Your task to perform on an android device: turn off location Image 0: 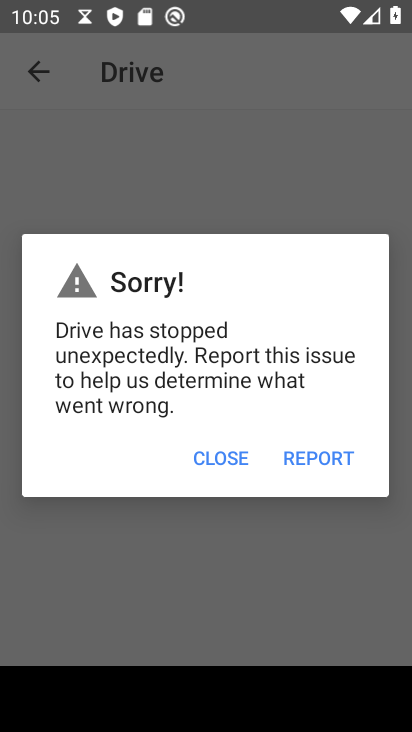
Step 0: press home button
Your task to perform on an android device: turn off location Image 1: 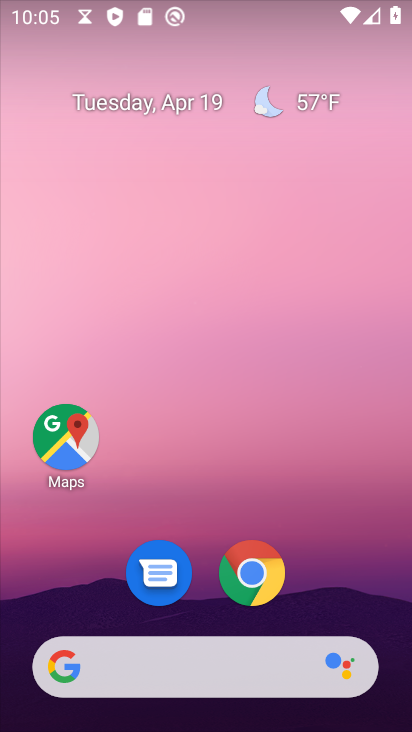
Step 1: drag from (298, 562) to (274, 70)
Your task to perform on an android device: turn off location Image 2: 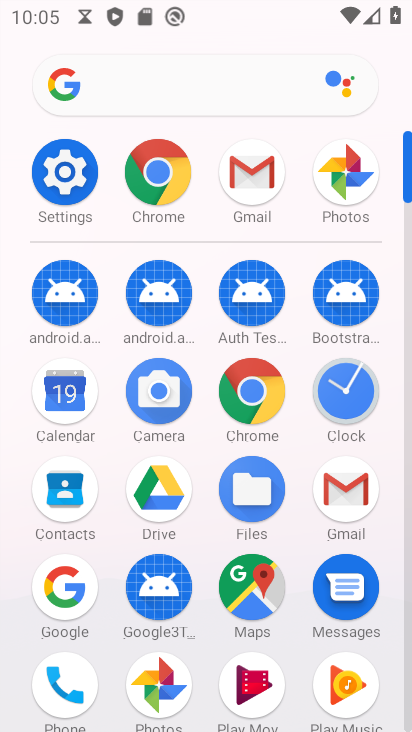
Step 2: click (69, 193)
Your task to perform on an android device: turn off location Image 3: 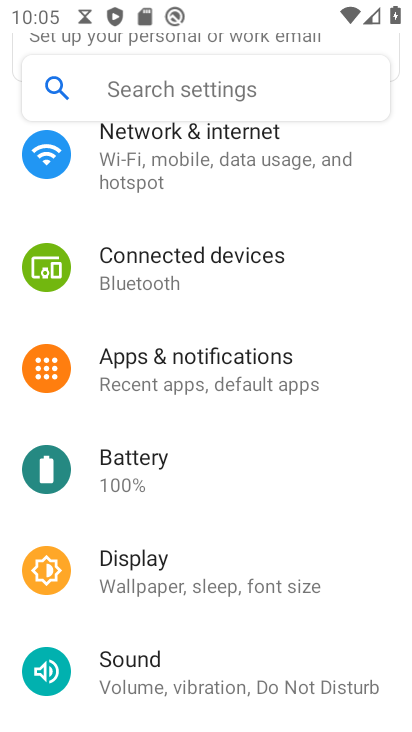
Step 3: drag from (240, 540) to (217, 141)
Your task to perform on an android device: turn off location Image 4: 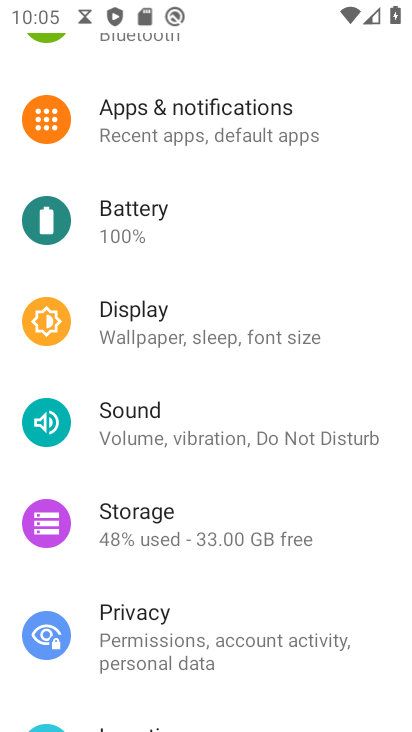
Step 4: drag from (307, 567) to (315, 213)
Your task to perform on an android device: turn off location Image 5: 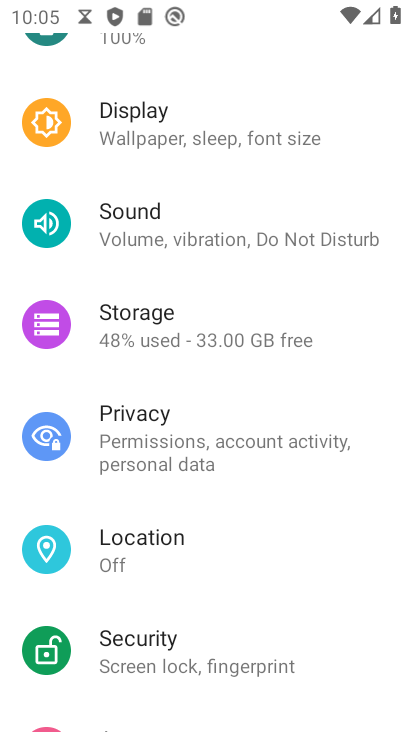
Step 5: click (112, 557)
Your task to perform on an android device: turn off location Image 6: 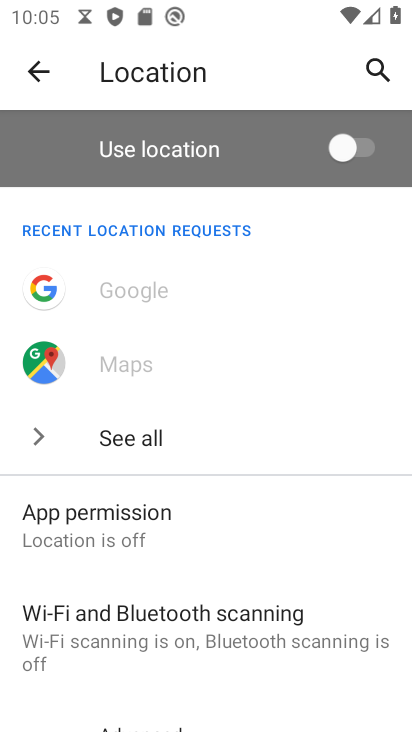
Step 6: task complete